Your task to perform on an android device: Open Google Chrome and open the bookmarks view Image 0: 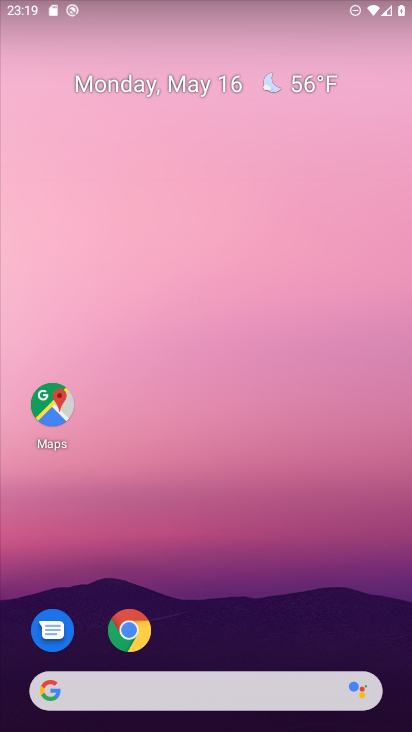
Step 0: click (128, 628)
Your task to perform on an android device: Open Google Chrome and open the bookmarks view Image 1: 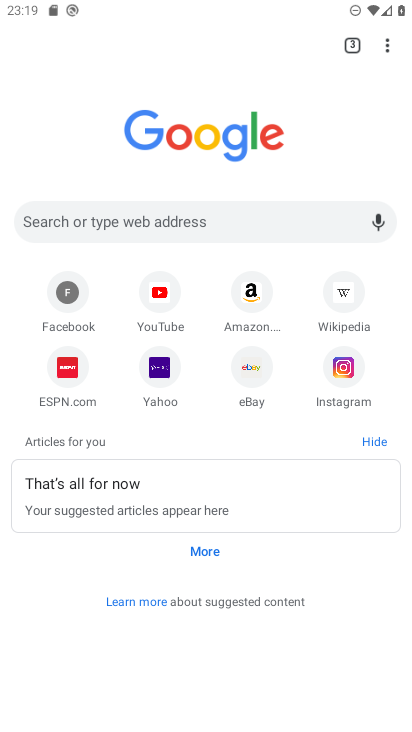
Step 1: click (386, 41)
Your task to perform on an android device: Open Google Chrome and open the bookmarks view Image 2: 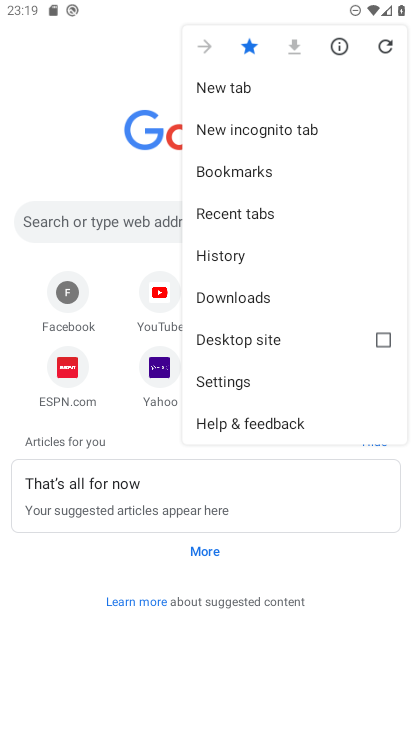
Step 2: click (273, 165)
Your task to perform on an android device: Open Google Chrome and open the bookmarks view Image 3: 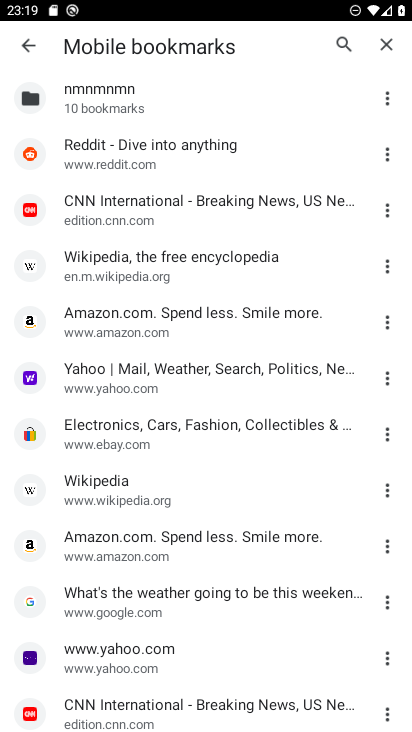
Step 3: task complete